Your task to perform on an android device: turn on javascript in the chrome app Image 0: 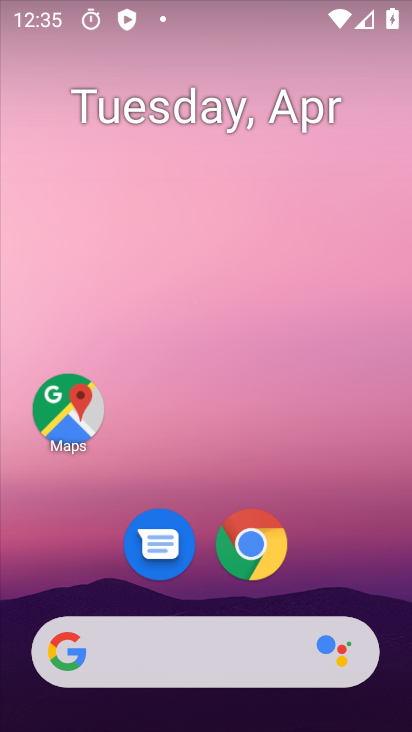
Step 0: click (251, 551)
Your task to perform on an android device: turn on javascript in the chrome app Image 1: 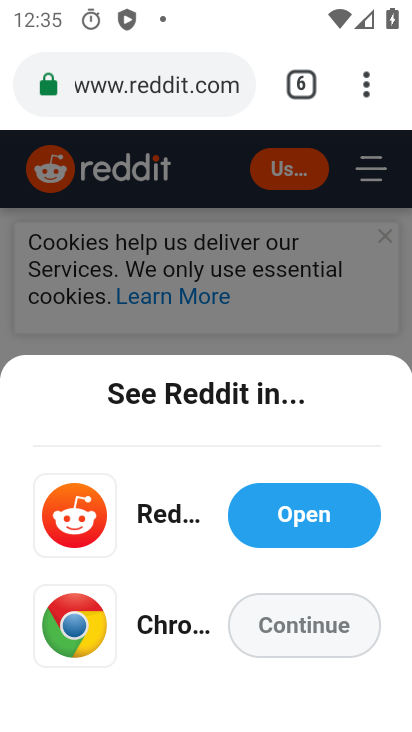
Step 1: click (369, 89)
Your task to perform on an android device: turn on javascript in the chrome app Image 2: 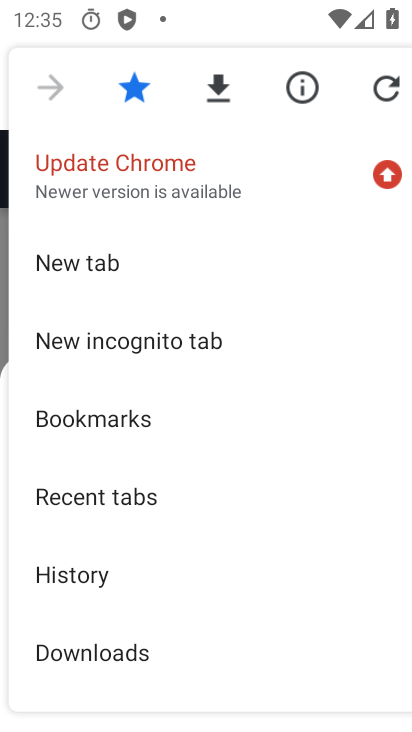
Step 2: drag from (293, 534) to (270, 270)
Your task to perform on an android device: turn on javascript in the chrome app Image 3: 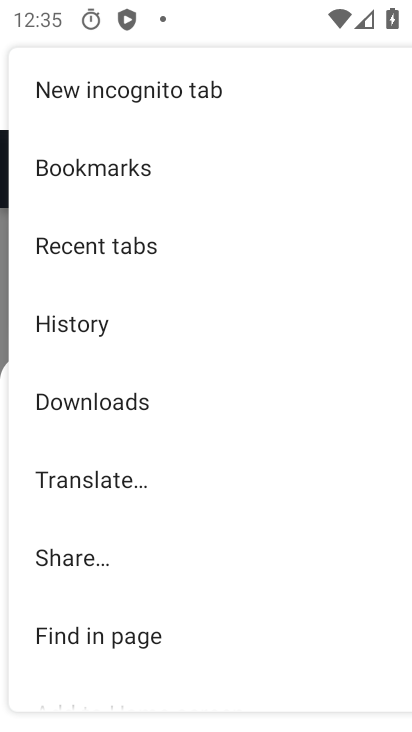
Step 3: drag from (276, 450) to (236, 192)
Your task to perform on an android device: turn on javascript in the chrome app Image 4: 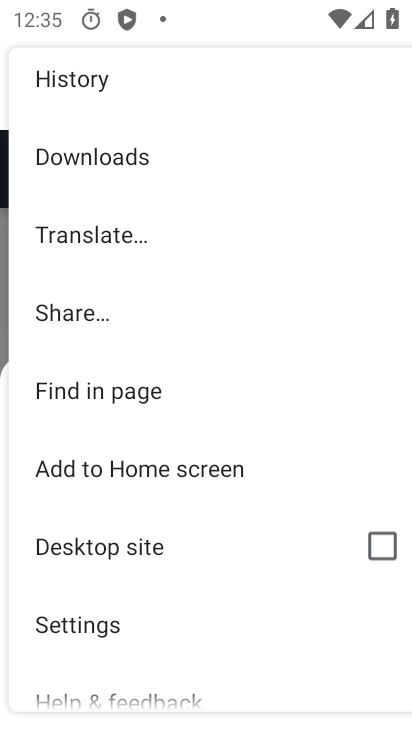
Step 4: click (68, 629)
Your task to perform on an android device: turn on javascript in the chrome app Image 5: 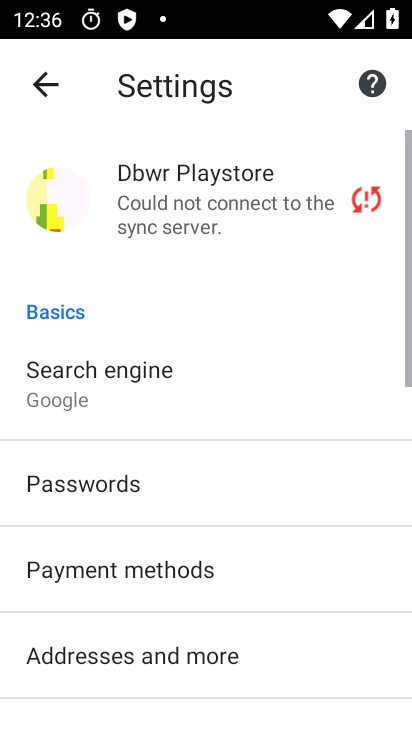
Step 5: drag from (347, 626) to (295, 161)
Your task to perform on an android device: turn on javascript in the chrome app Image 6: 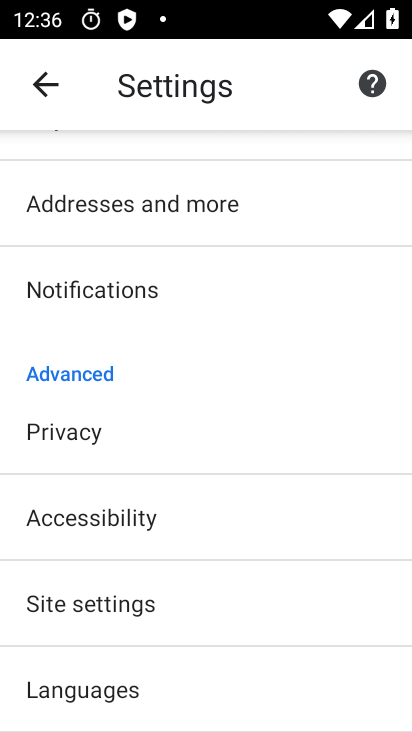
Step 6: click (129, 606)
Your task to perform on an android device: turn on javascript in the chrome app Image 7: 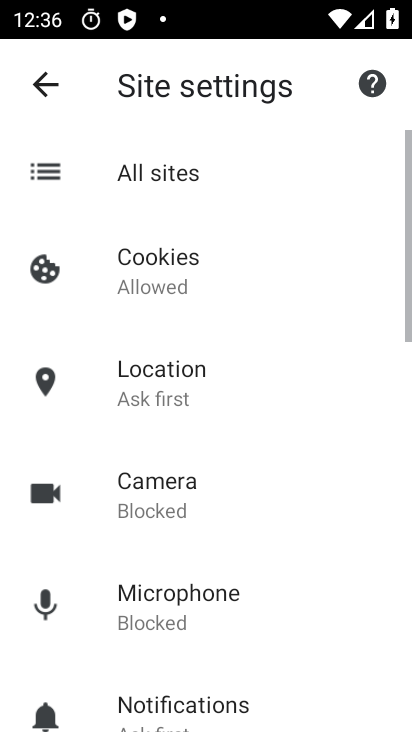
Step 7: drag from (396, 625) to (373, 339)
Your task to perform on an android device: turn on javascript in the chrome app Image 8: 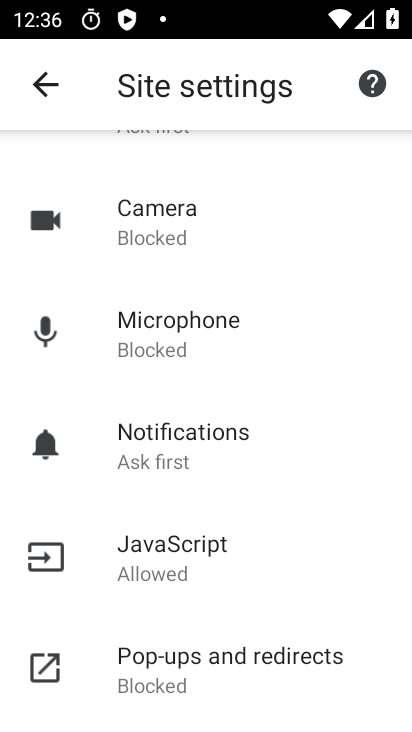
Step 8: click (148, 557)
Your task to perform on an android device: turn on javascript in the chrome app Image 9: 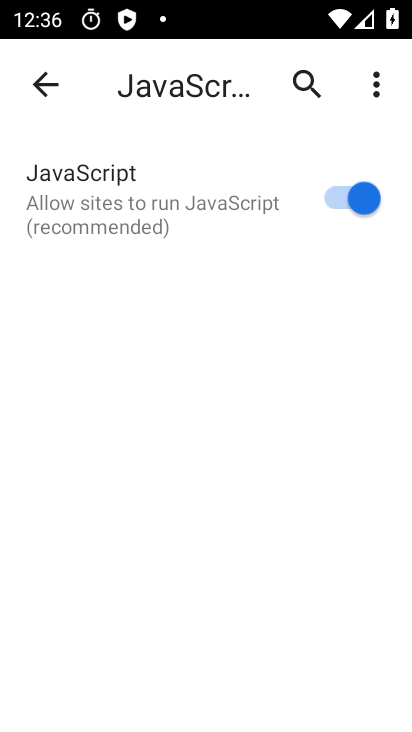
Step 9: task complete